Your task to perform on an android device: manage bookmarks in the chrome app Image 0: 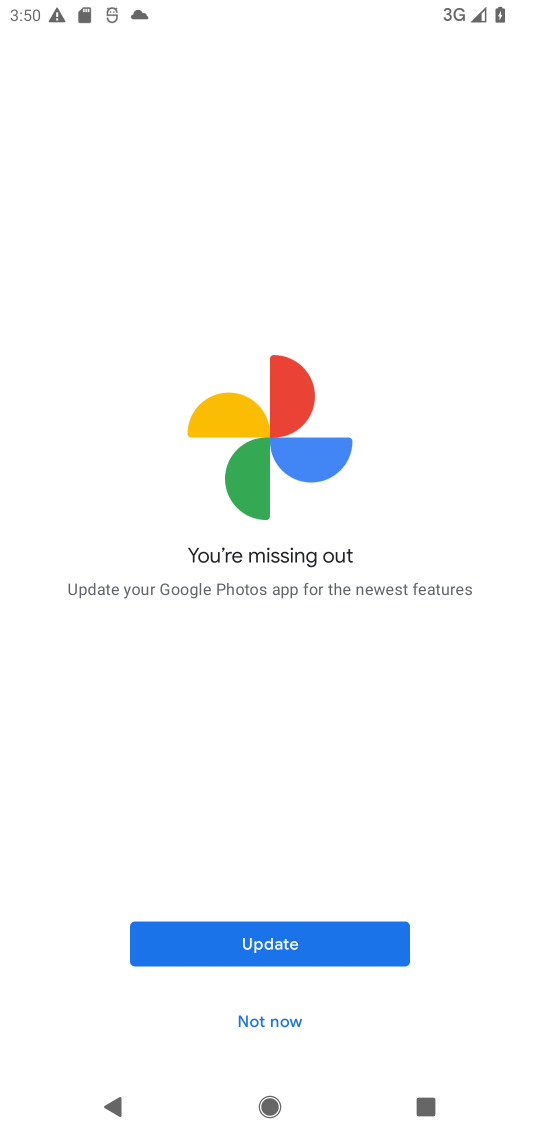
Step 0: press back button
Your task to perform on an android device: manage bookmarks in the chrome app Image 1: 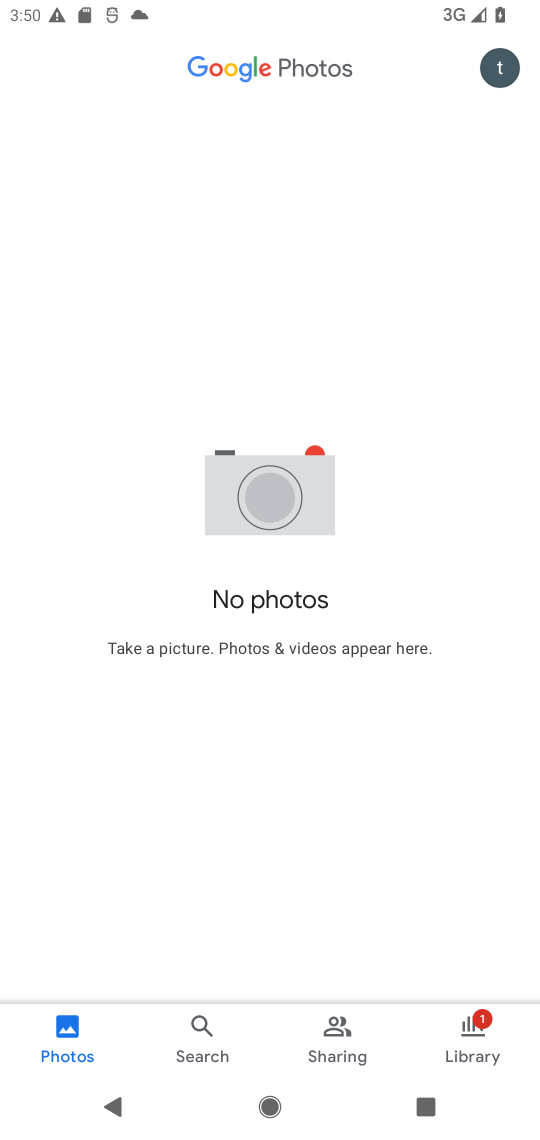
Step 1: press back button
Your task to perform on an android device: manage bookmarks in the chrome app Image 2: 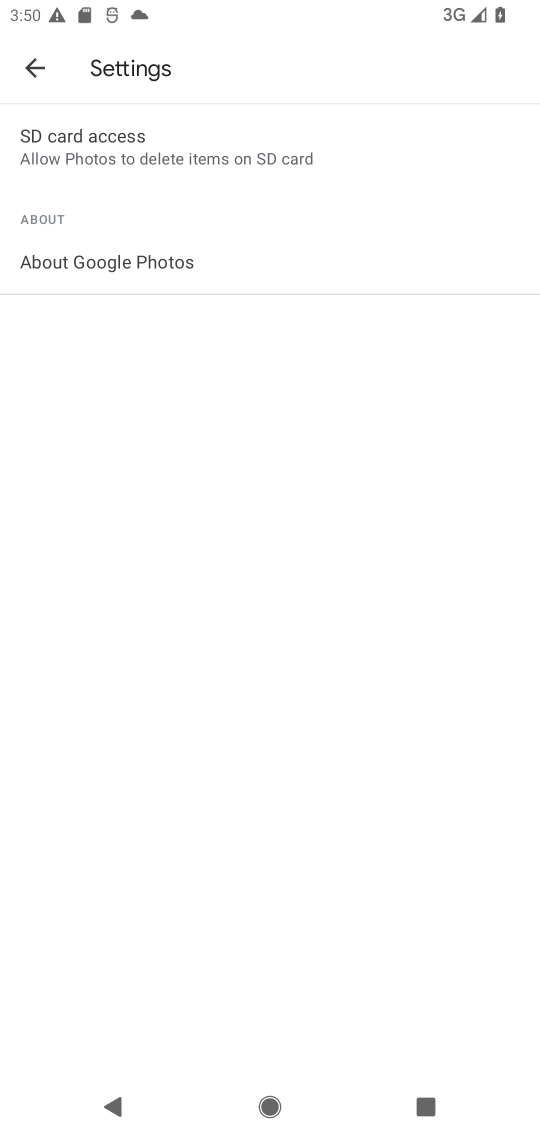
Step 2: press home button
Your task to perform on an android device: manage bookmarks in the chrome app Image 3: 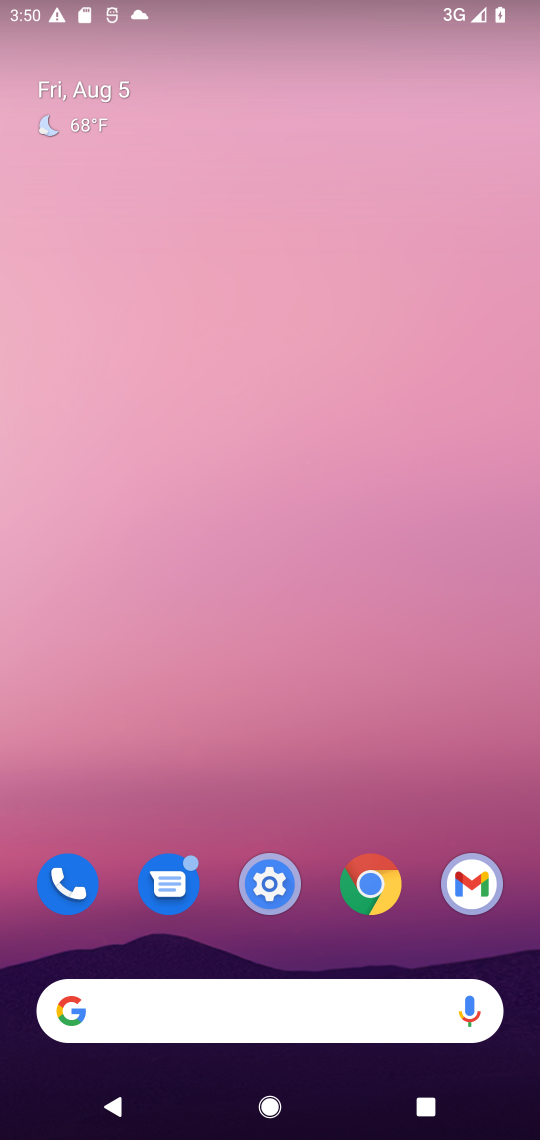
Step 3: drag from (492, 1006) to (370, 114)
Your task to perform on an android device: manage bookmarks in the chrome app Image 4: 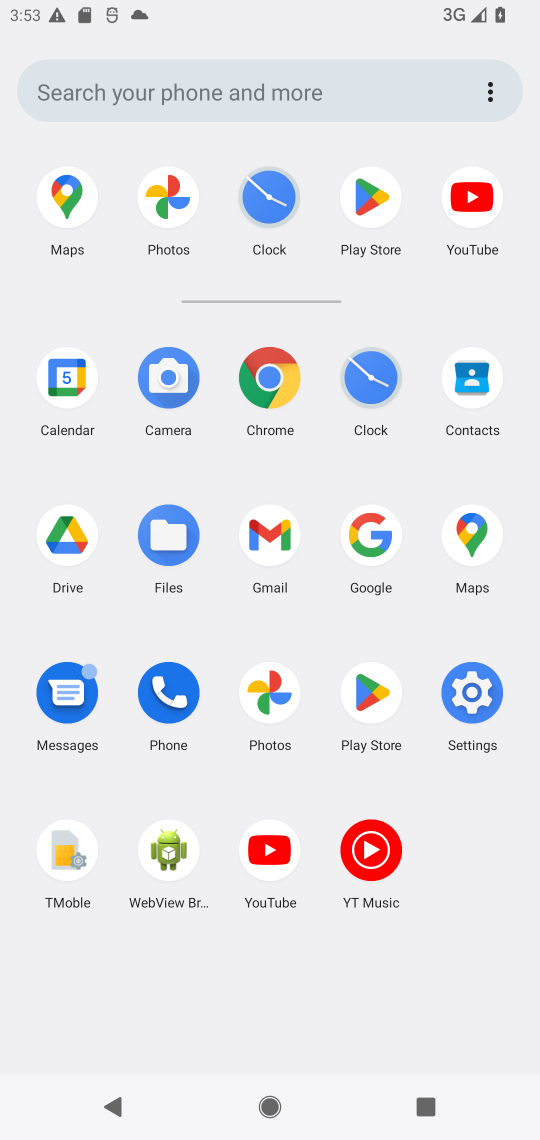
Step 4: click (266, 384)
Your task to perform on an android device: manage bookmarks in the chrome app Image 5: 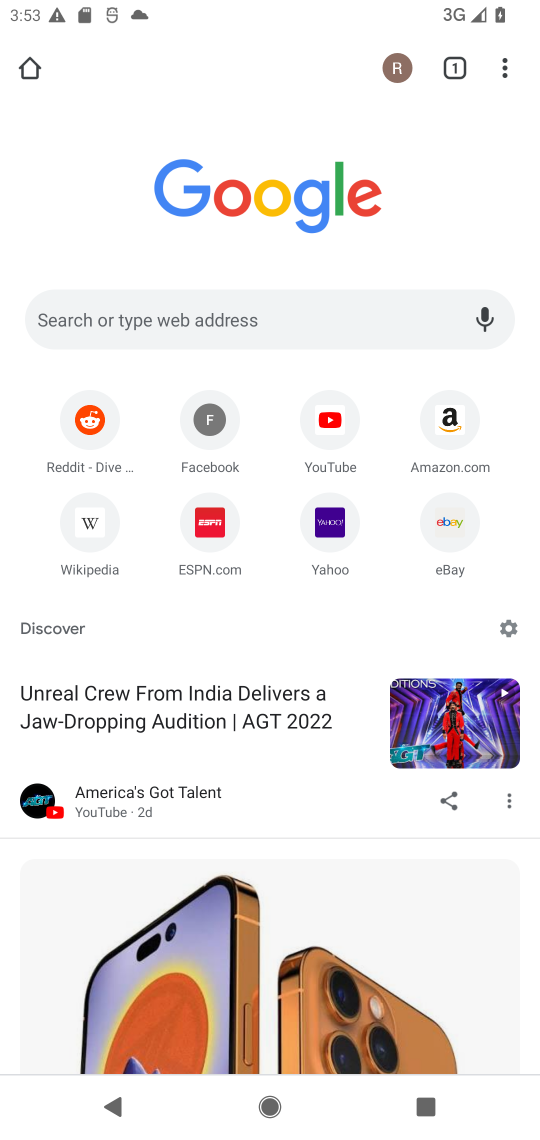
Step 5: task complete